Your task to perform on an android device: turn off data saver in the chrome app Image 0: 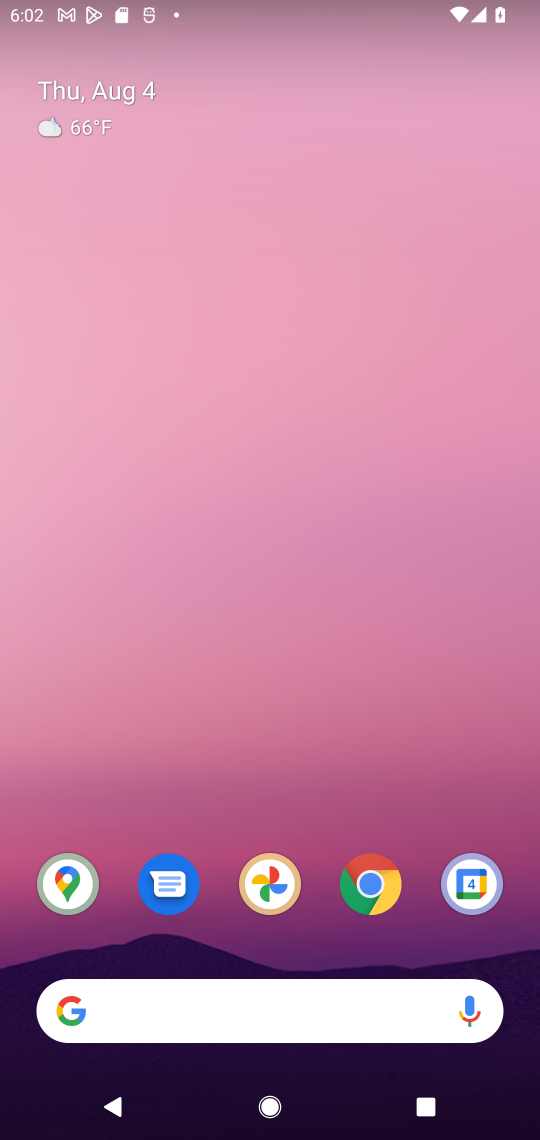
Step 0: click (382, 894)
Your task to perform on an android device: turn off data saver in the chrome app Image 1: 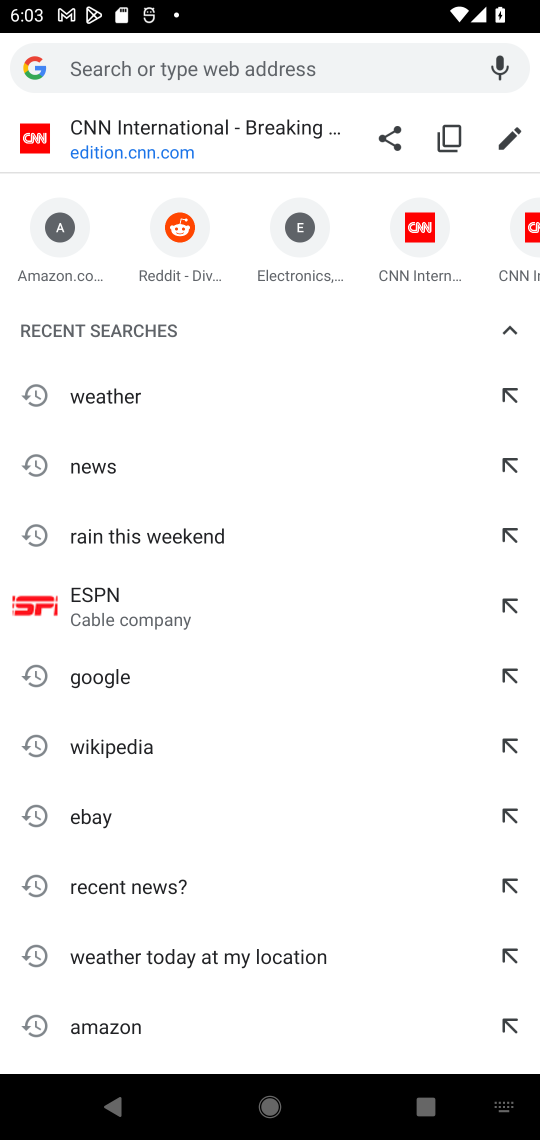
Step 1: task complete